Your task to perform on an android device: all mails in gmail Image 0: 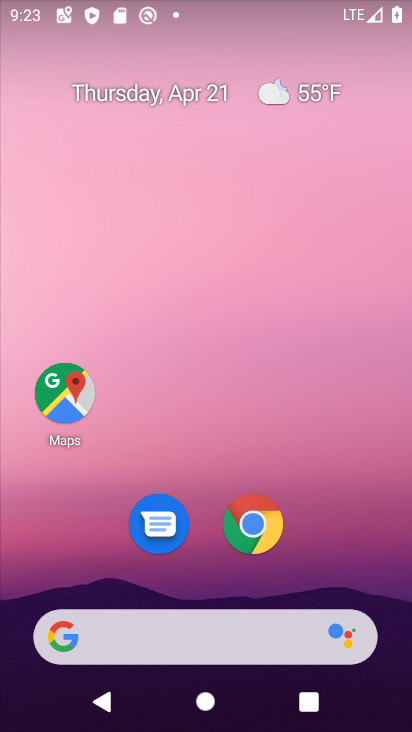
Step 0: drag from (370, 529) to (315, 96)
Your task to perform on an android device: all mails in gmail Image 1: 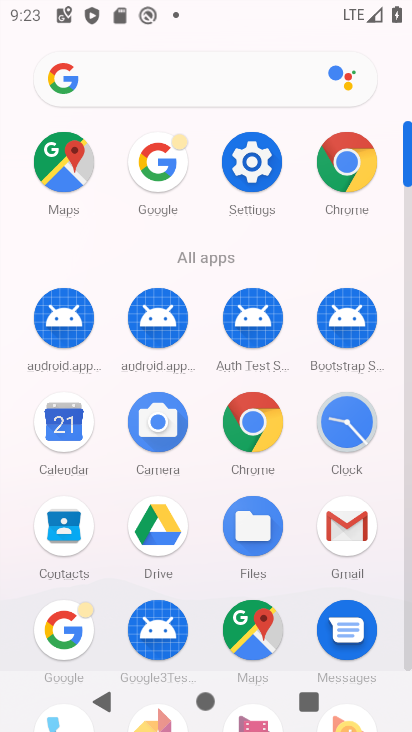
Step 1: click (352, 535)
Your task to perform on an android device: all mails in gmail Image 2: 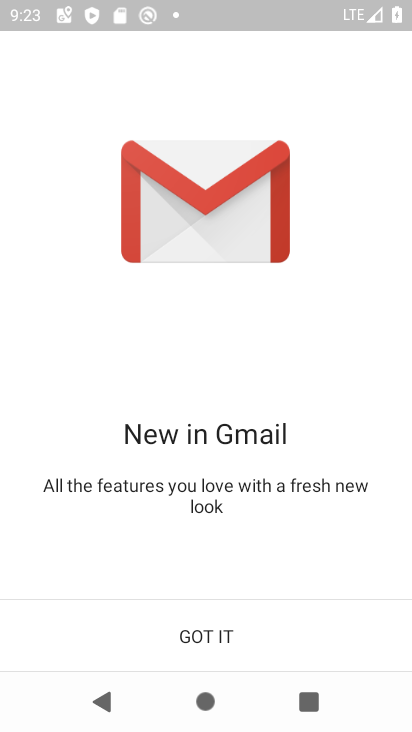
Step 2: click (275, 625)
Your task to perform on an android device: all mails in gmail Image 3: 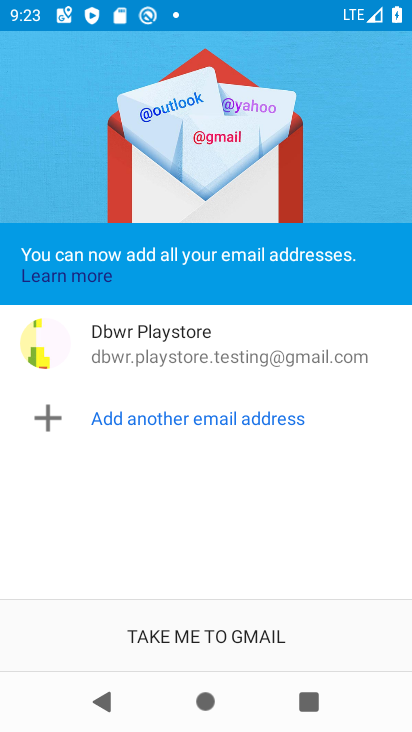
Step 3: click (278, 632)
Your task to perform on an android device: all mails in gmail Image 4: 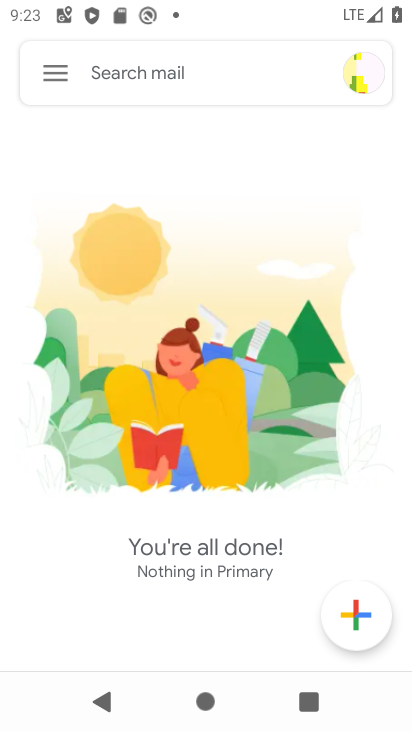
Step 4: click (56, 68)
Your task to perform on an android device: all mails in gmail Image 5: 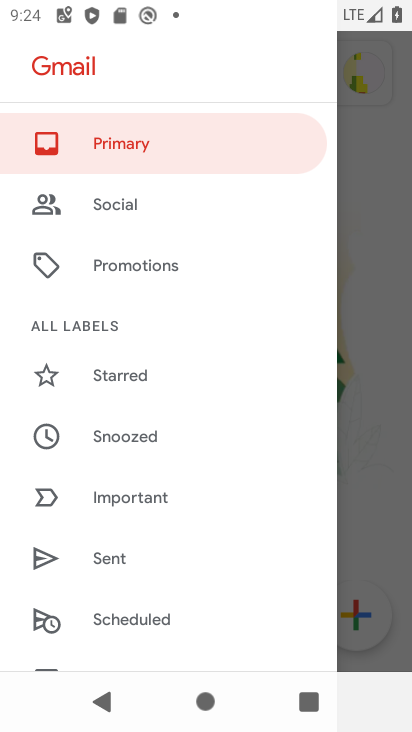
Step 5: drag from (220, 545) to (210, 199)
Your task to perform on an android device: all mails in gmail Image 6: 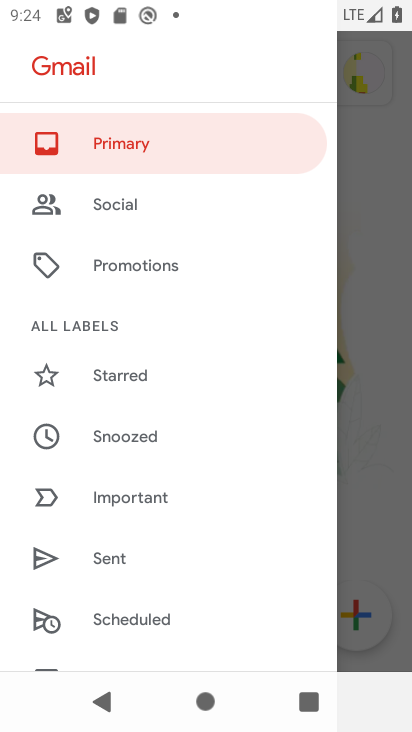
Step 6: drag from (136, 545) to (213, 147)
Your task to perform on an android device: all mails in gmail Image 7: 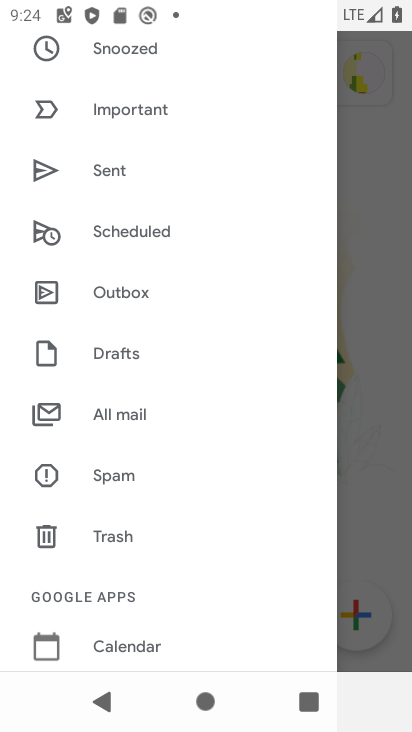
Step 7: click (142, 406)
Your task to perform on an android device: all mails in gmail Image 8: 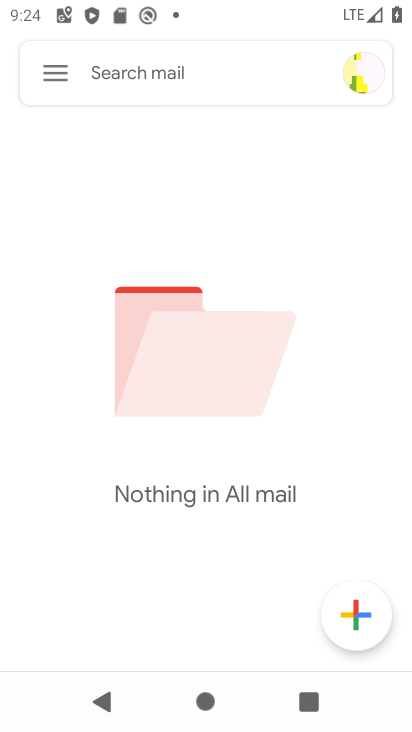
Step 8: task complete